Your task to perform on an android device: Open Google Maps Image 0: 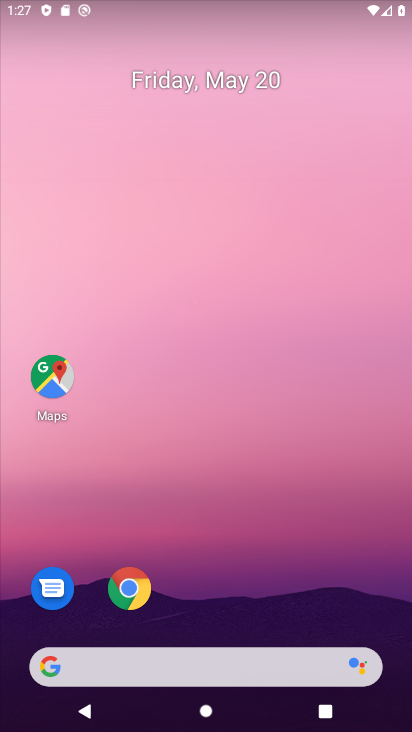
Step 0: click (66, 386)
Your task to perform on an android device: Open Google Maps Image 1: 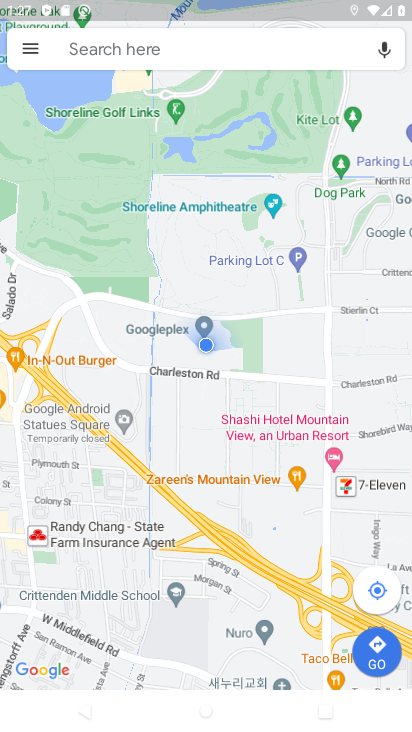
Step 1: task complete